Your task to perform on an android device: open the mobile data screen to see how much data has been used Image 0: 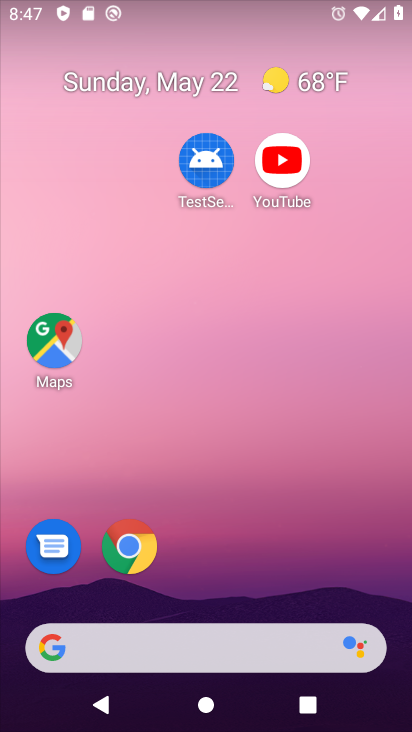
Step 0: click (411, 462)
Your task to perform on an android device: open the mobile data screen to see how much data has been used Image 1: 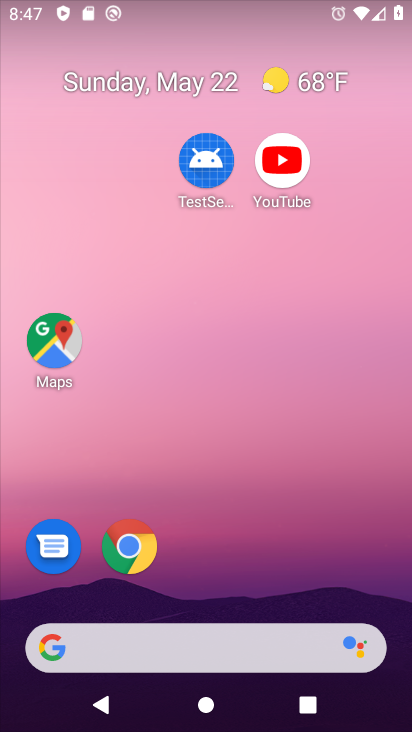
Step 1: drag from (276, 708) to (68, 91)
Your task to perform on an android device: open the mobile data screen to see how much data has been used Image 2: 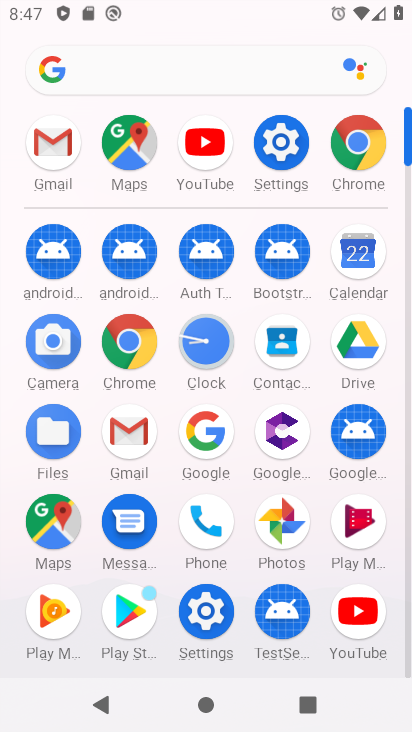
Step 2: click (261, 156)
Your task to perform on an android device: open the mobile data screen to see how much data has been used Image 3: 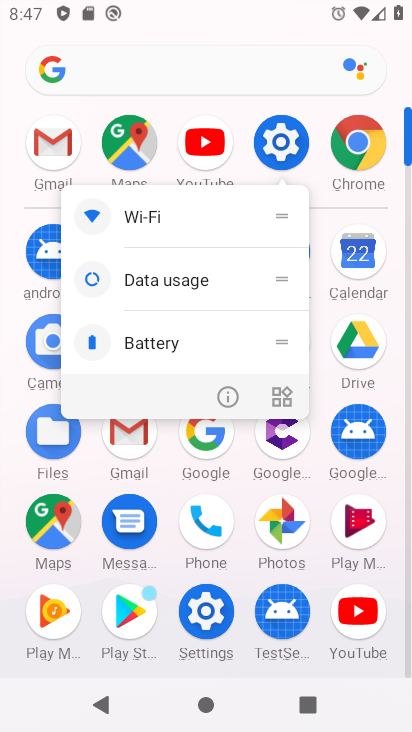
Step 3: click (159, 220)
Your task to perform on an android device: open the mobile data screen to see how much data has been used Image 4: 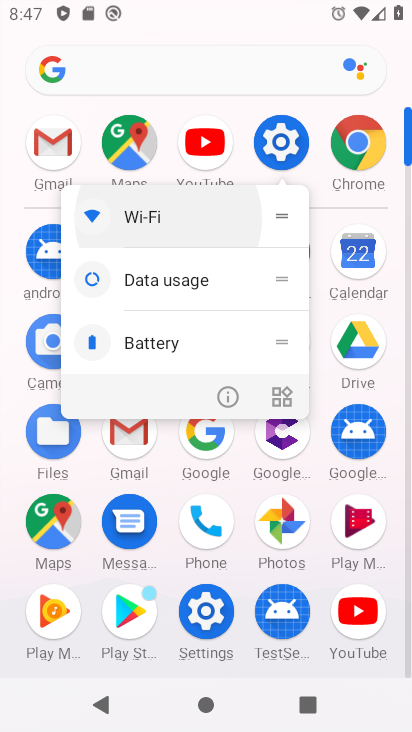
Step 4: click (159, 220)
Your task to perform on an android device: open the mobile data screen to see how much data has been used Image 5: 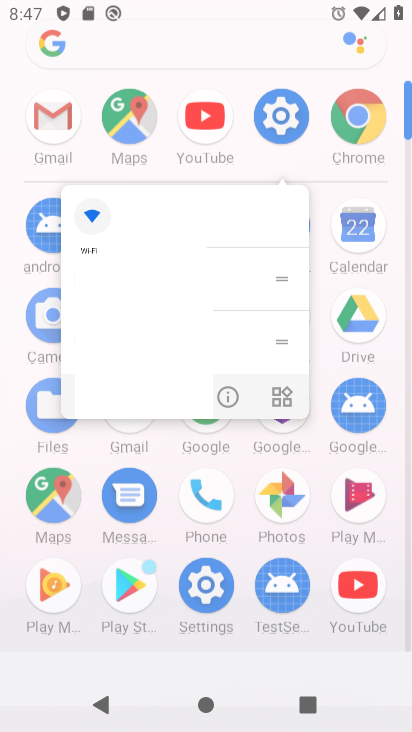
Step 5: click (158, 221)
Your task to perform on an android device: open the mobile data screen to see how much data has been used Image 6: 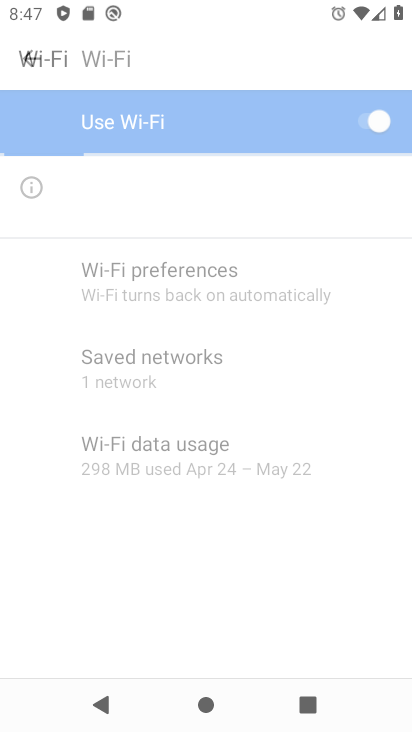
Step 6: click (159, 223)
Your task to perform on an android device: open the mobile data screen to see how much data has been used Image 7: 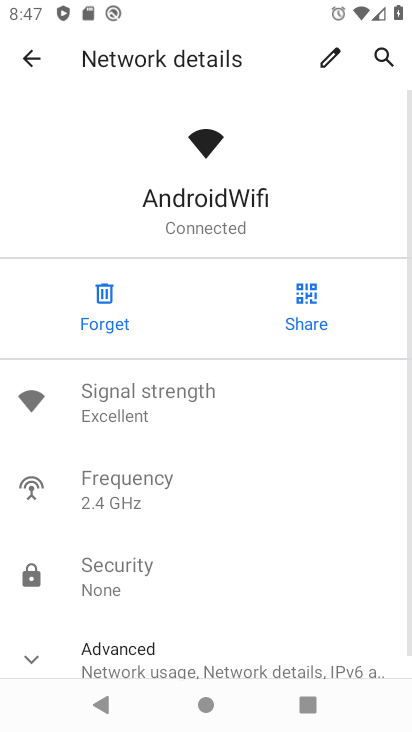
Step 7: click (13, 67)
Your task to perform on an android device: open the mobile data screen to see how much data has been used Image 8: 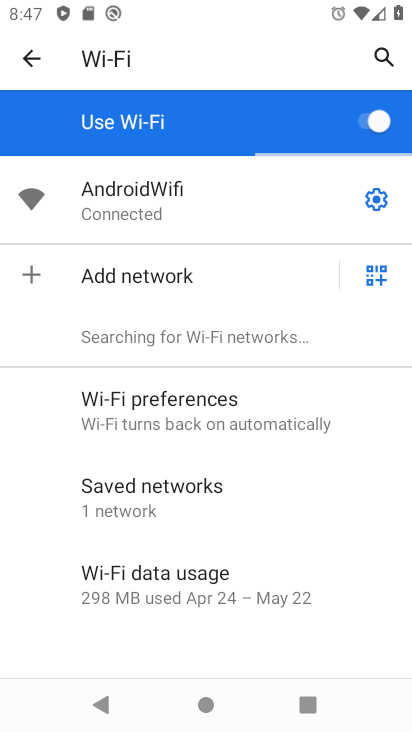
Step 8: click (25, 61)
Your task to perform on an android device: open the mobile data screen to see how much data has been used Image 9: 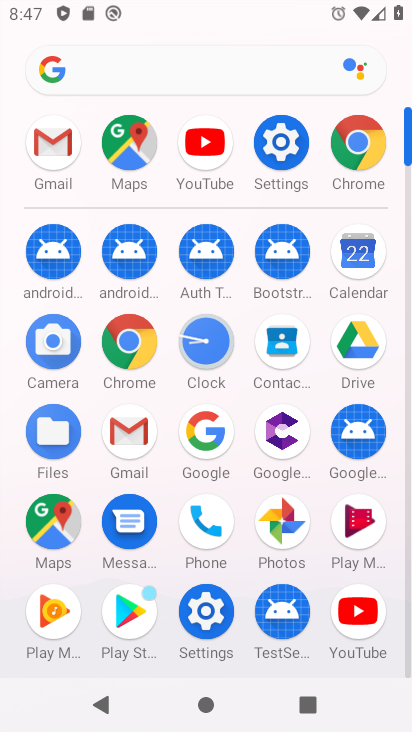
Step 9: click (273, 142)
Your task to perform on an android device: open the mobile data screen to see how much data has been used Image 10: 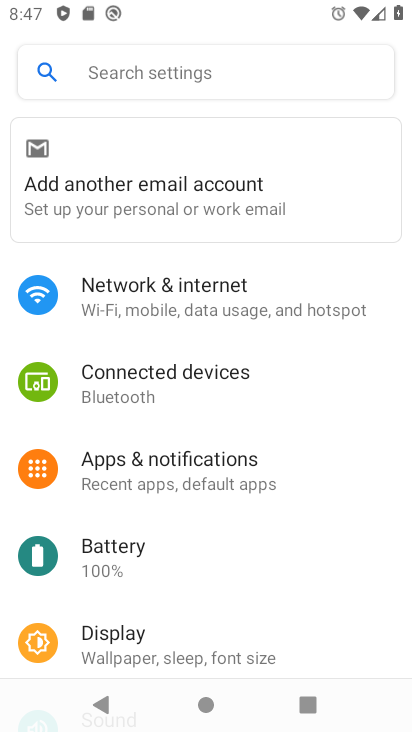
Step 10: click (185, 303)
Your task to perform on an android device: open the mobile data screen to see how much data has been used Image 11: 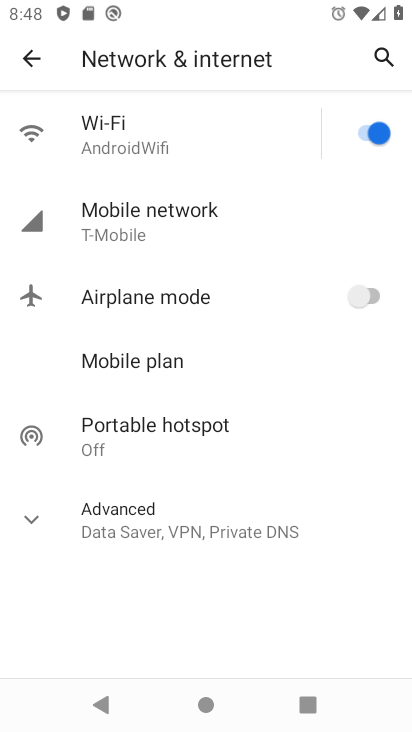
Step 11: click (94, 220)
Your task to perform on an android device: open the mobile data screen to see how much data has been used Image 12: 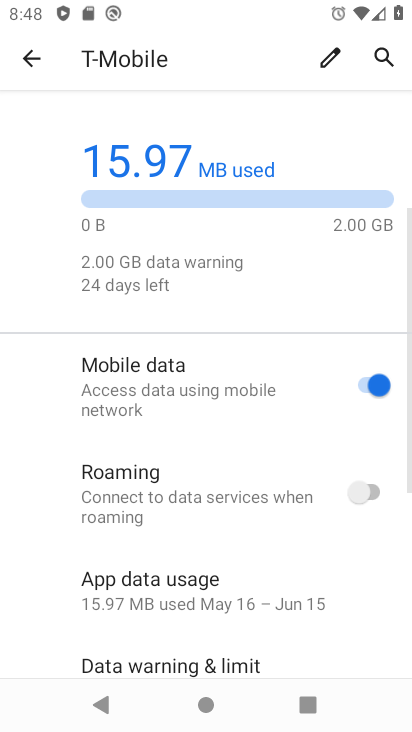
Step 12: task complete